Your task to perform on an android device: Open the stopwatch Image 0: 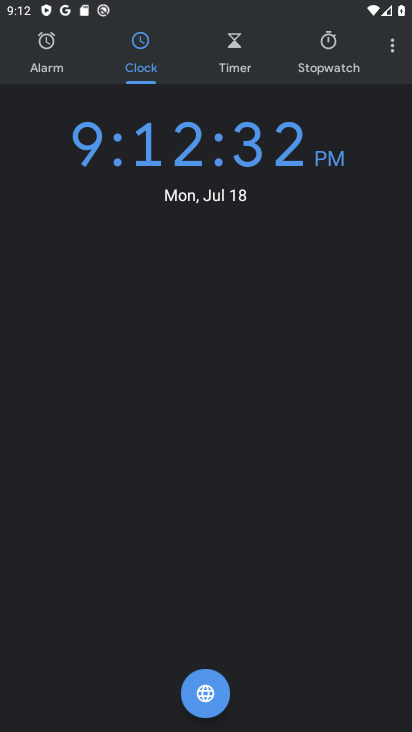
Step 0: press home button
Your task to perform on an android device: Open the stopwatch Image 1: 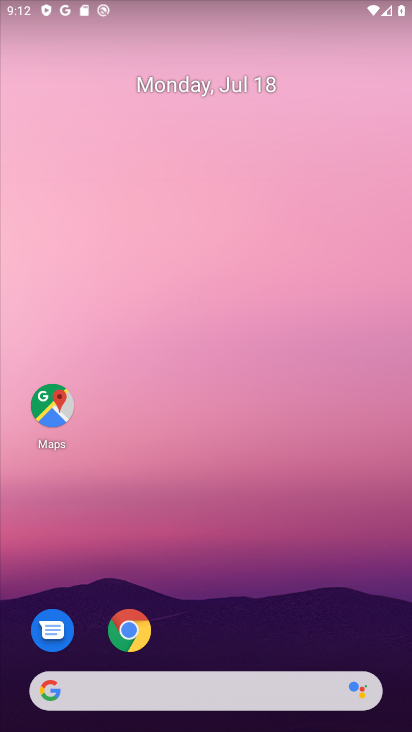
Step 1: drag from (383, 662) to (273, 19)
Your task to perform on an android device: Open the stopwatch Image 2: 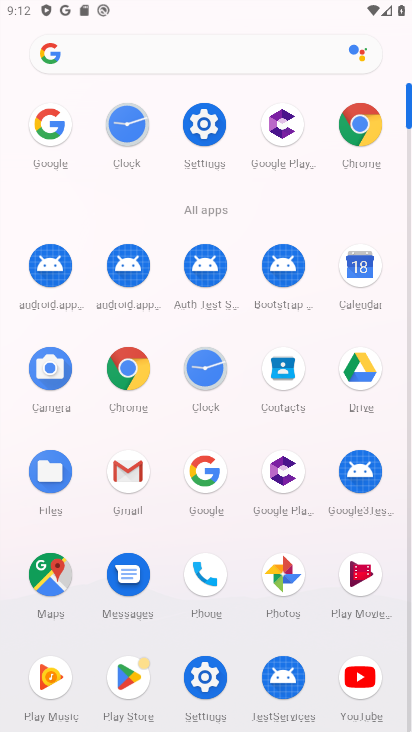
Step 2: click (209, 383)
Your task to perform on an android device: Open the stopwatch Image 3: 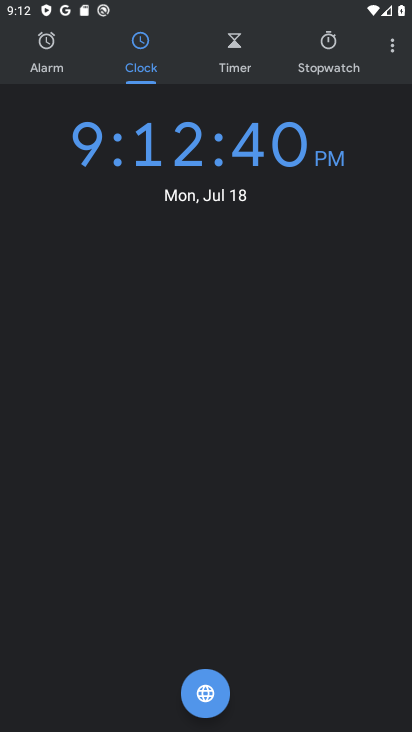
Step 3: click (320, 44)
Your task to perform on an android device: Open the stopwatch Image 4: 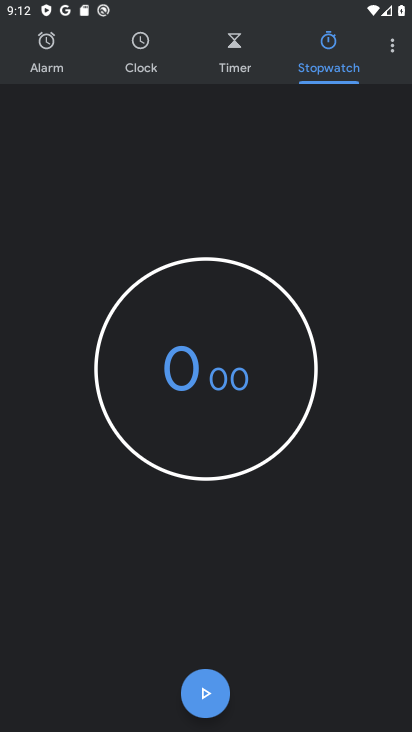
Step 4: task complete